Your task to perform on an android device: turn off translation in the chrome app Image 0: 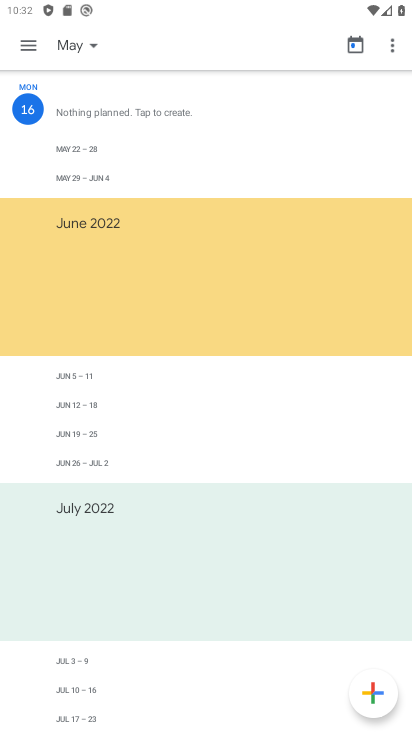
Step 0: press home button
Your task to perform on an android device: turn off translation in the chrome app Image 1: 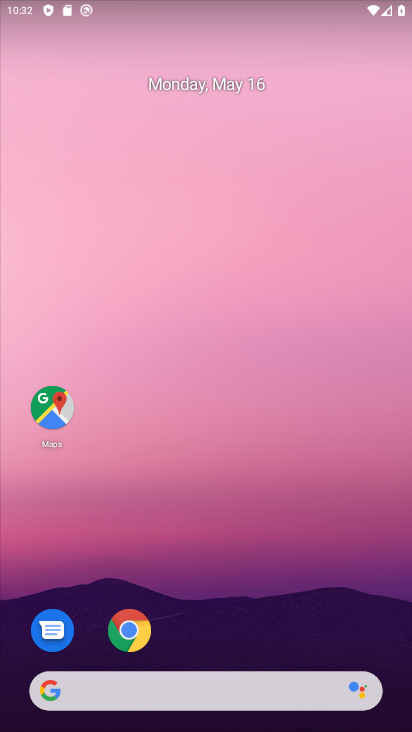
Step 1: click (121, 636)
Your task to perform on an android device: turn off translation in the chrome app Image 2: 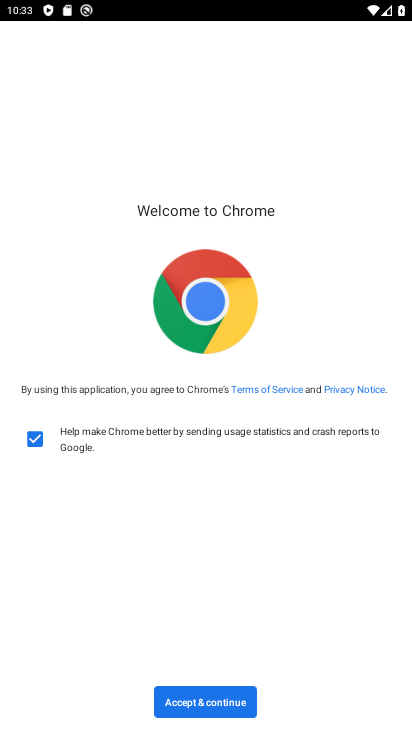
Step 2: click (217, 700)
Your task to perform on an android device: turn off translation in the chrome app Image 3: 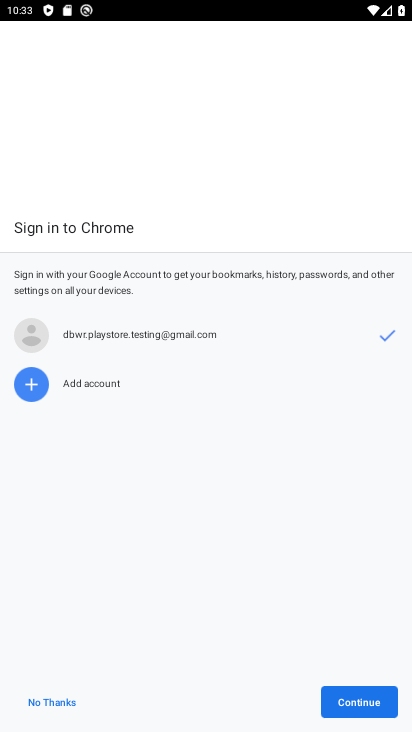
Step 3: click (378, 705)
Your task to perform on an android device: turn off translation in the chrome app Image 4: 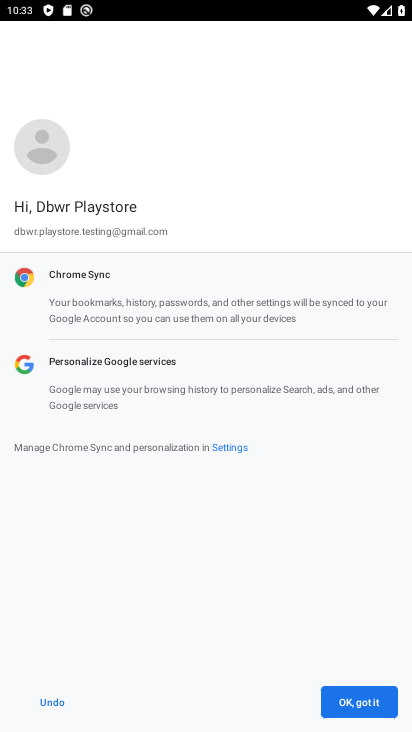
Step 4: click (377, 706)
Your task to perform on an android device: turn off translation in the chrome app Image 5: 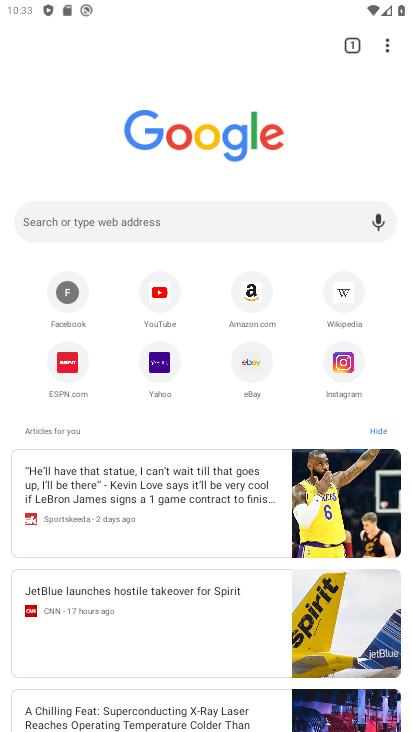
Step 5: drag from (394, 49) to (281, 380)
Your task to perform on an android device: turn off translation in the chrome app Image 6: 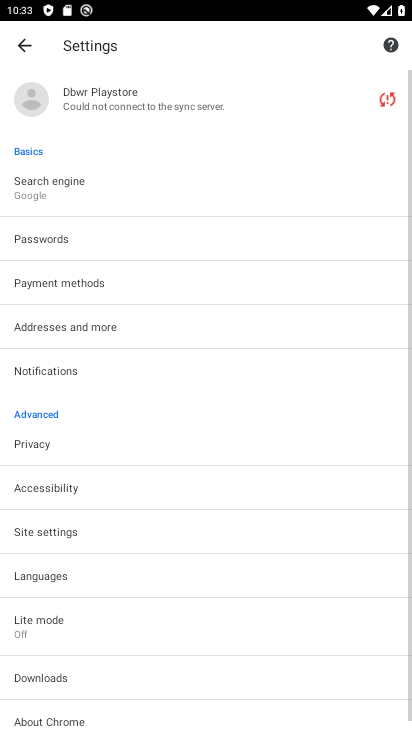
Step 6: drag from (128, 666) to (202, 412)
Your task to perform on an android device: turn off translation in the chrome app Image 7: 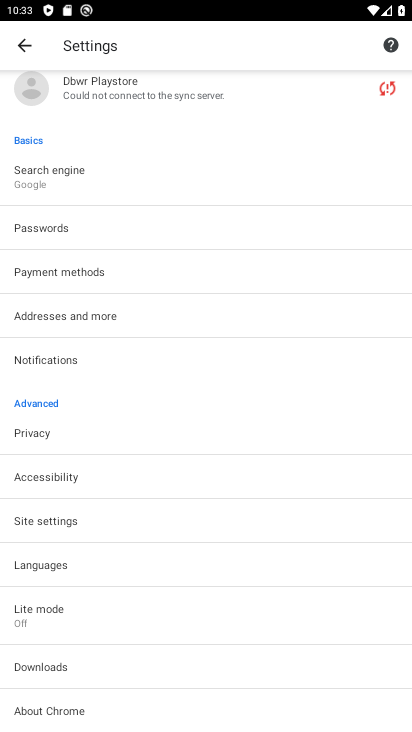
Step 7: click (121, 577)
Your task to perform on an android device: turn off translation in the chrome app Image 8: 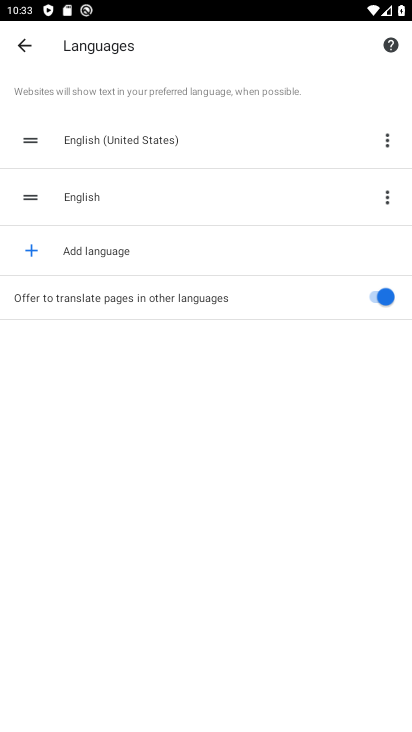
Step 8: click (375, 295)
Your task to perform on an android device: turn off translation in the chrome app Image 9: 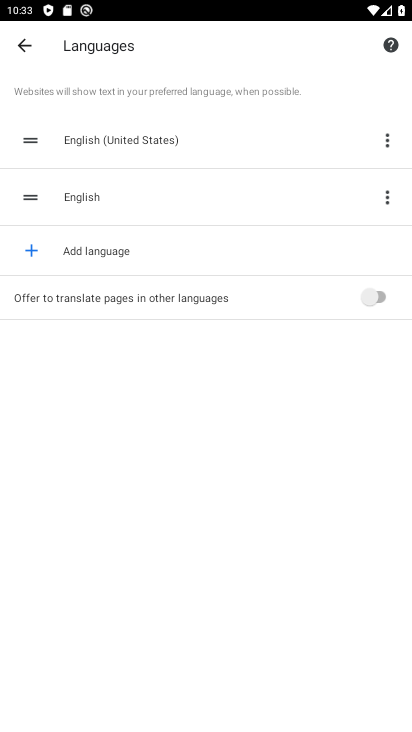
Step 9: task complete